Your task to perform on an android device: Show me popular games on the Play Store Image 0: 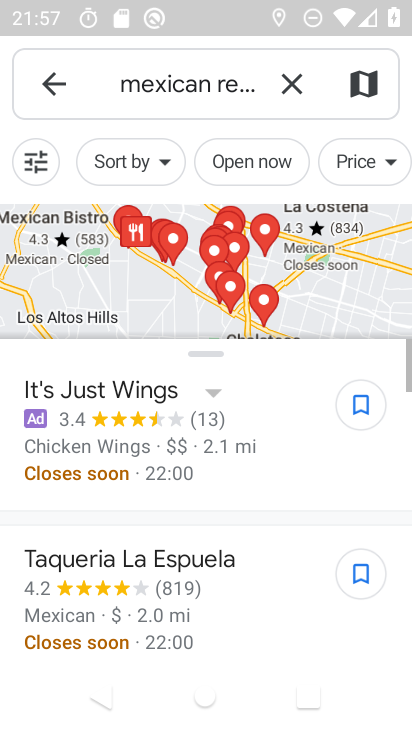
Step 0: press home button
Your task to perform on an android device: Show me popular games on the Play Store Image 1: 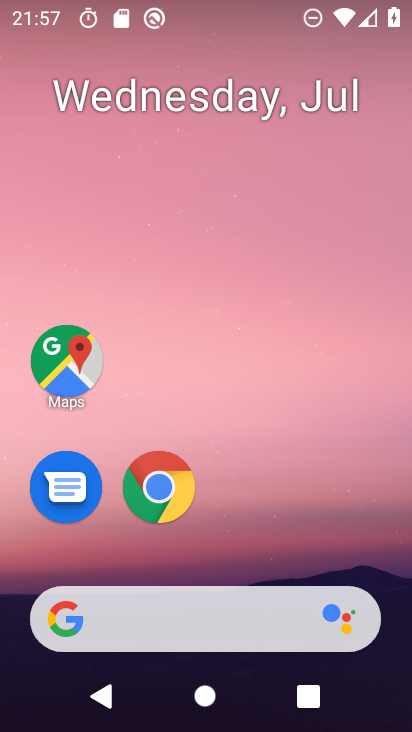
Step 1: drag from (323, 523) to (337, 128)
Your task to perform on an android device: Show me popular games on the Play Store Image 2: 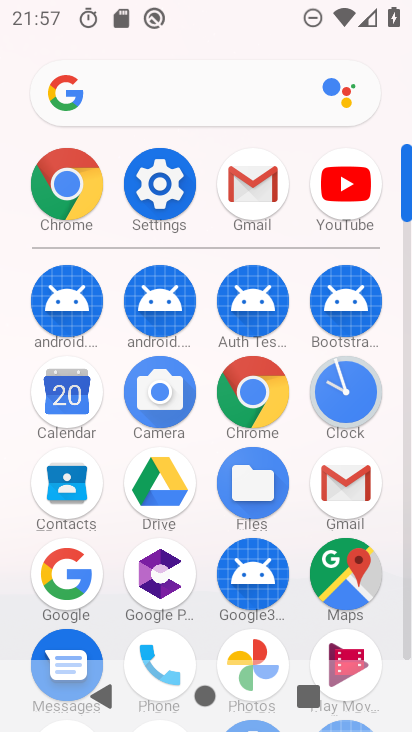
Step 2: drag from (394, 559) to (411, 274)
Your task to perform on an android device: Show me popular games on the Play Store Image 3: 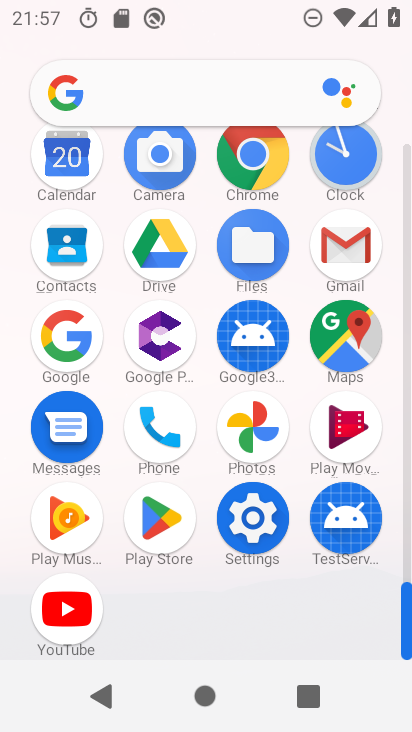
Step 3: click (172, 518)
Your task to perform on an android device: Show me popular games on the Play Store Image 4: 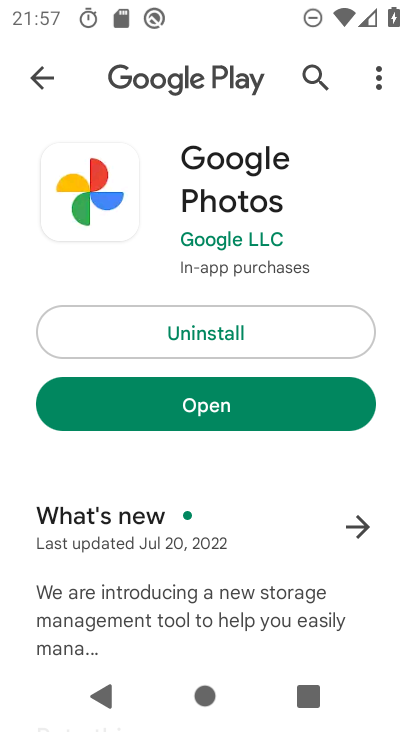
Step 4: press back button
Your task to perform on an android device: Show me popular games on the Play Store Image 5: 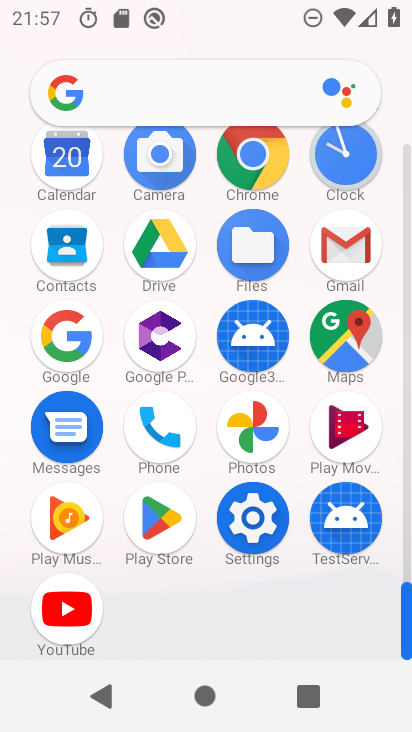
Step 5: click (169, 516)
Your task to perform on an android device: Show me popular games on the Play Store Image 6: 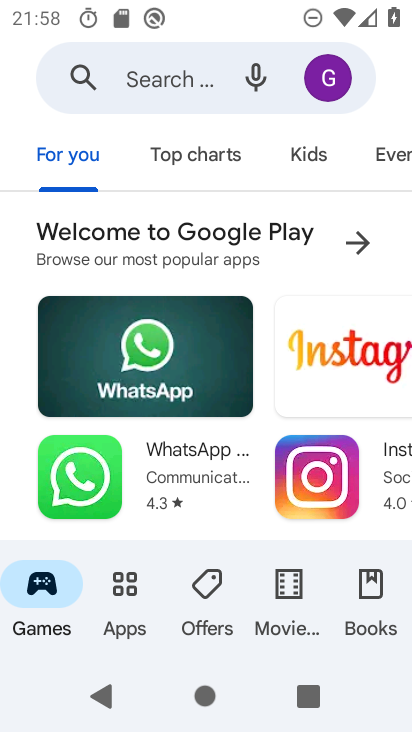
Step 6: task complete